Your task to perform on an android device: Go to Reddit Image 0: 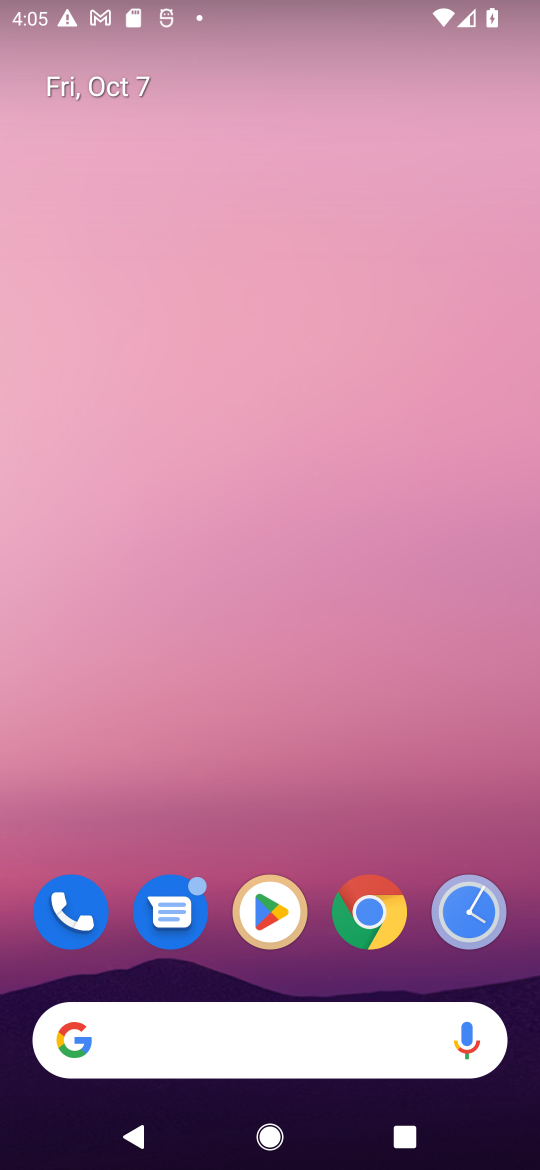
Step 0: drag from (311, 963) to (400, 352)
Your task to perform on an android device: Go to Reddit Image 1: 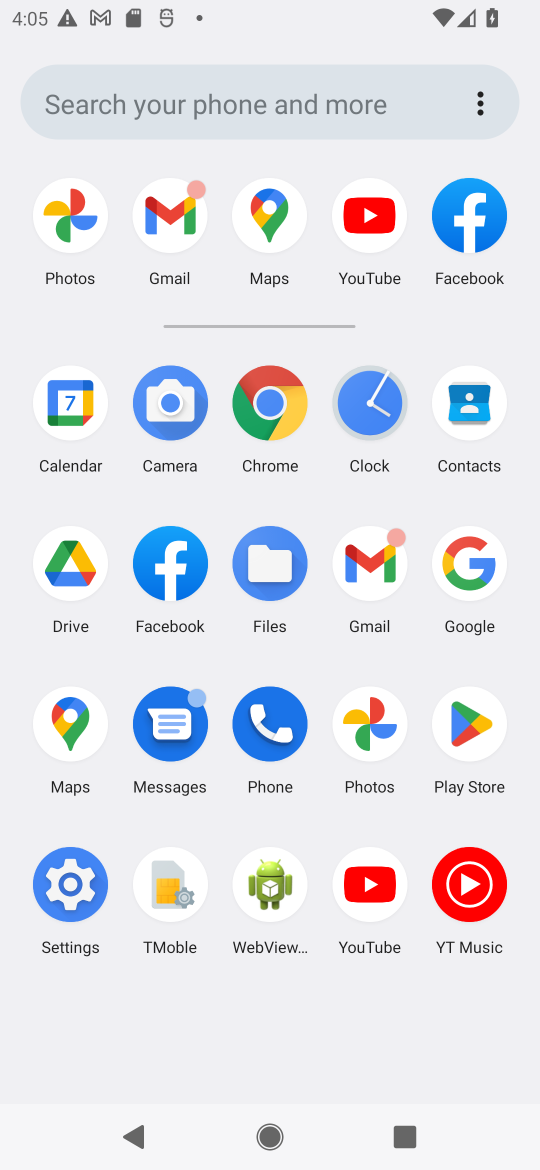
Step 1: click (272, 417)
Your task to perform on an android device: Go to Reddit Image 2: 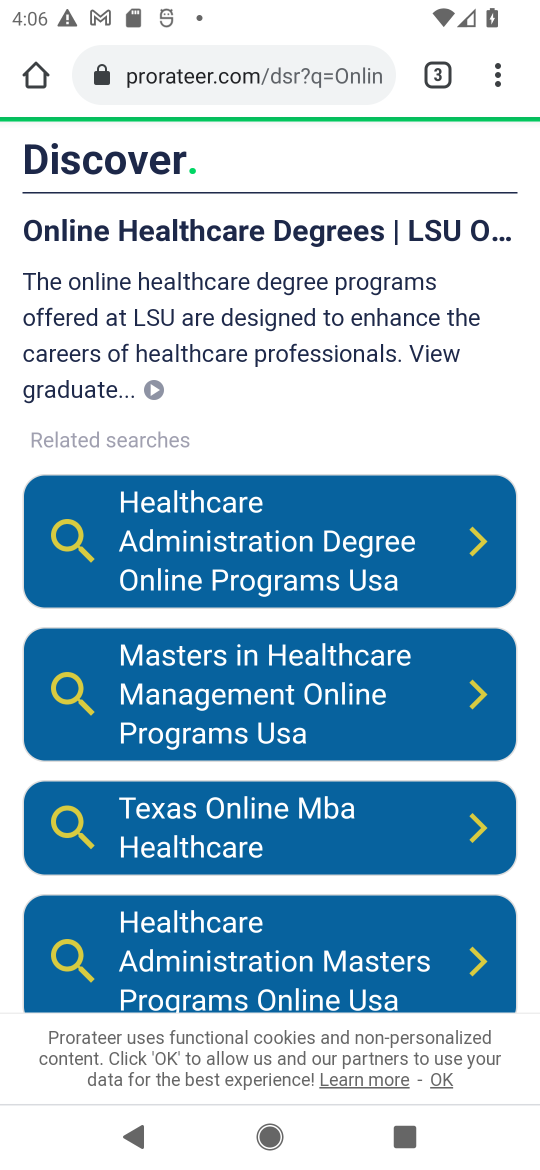
Step 2: click (498, 61)
Your task to perform on an android device: Go to Reddit Image 3: 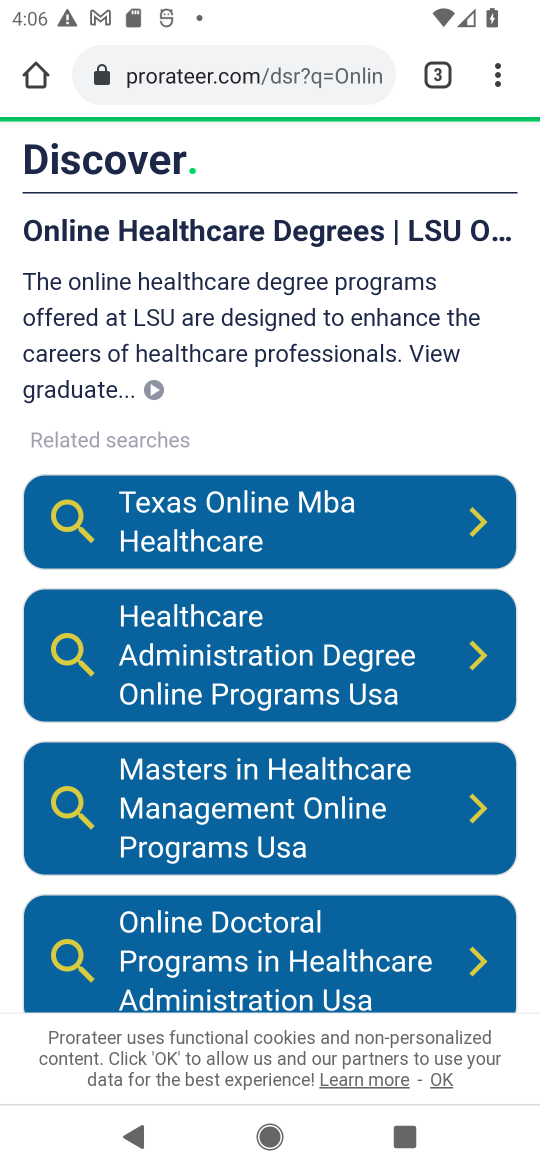
Step 3: click (498, 61)
Your task to perform on an android device: Go to Reddit Image 4: 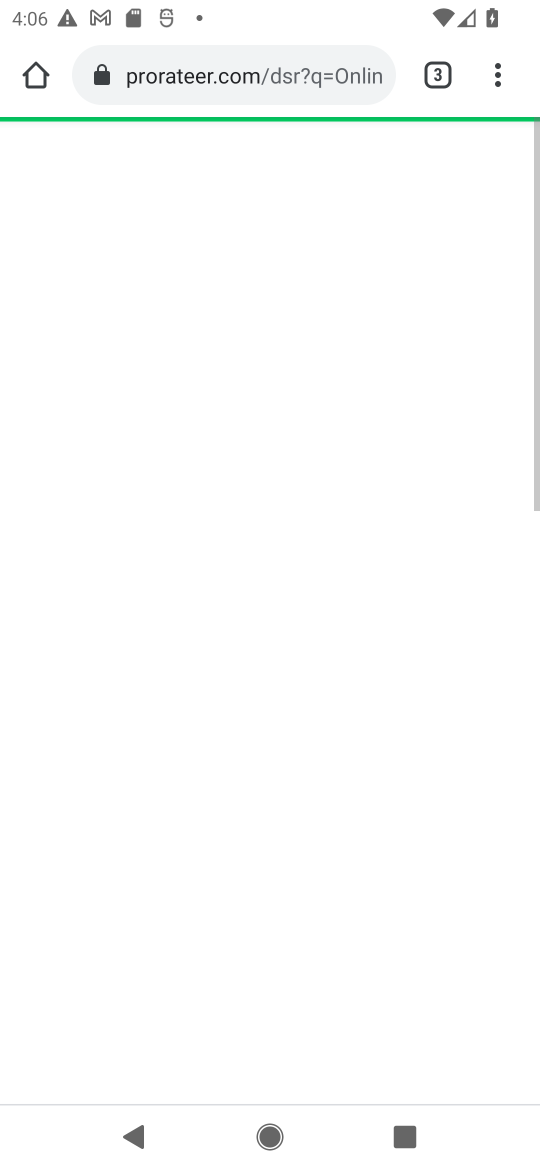
Step 4: click (529, 86)
Your task to perform on an android device: Go to Reddit Image 5: 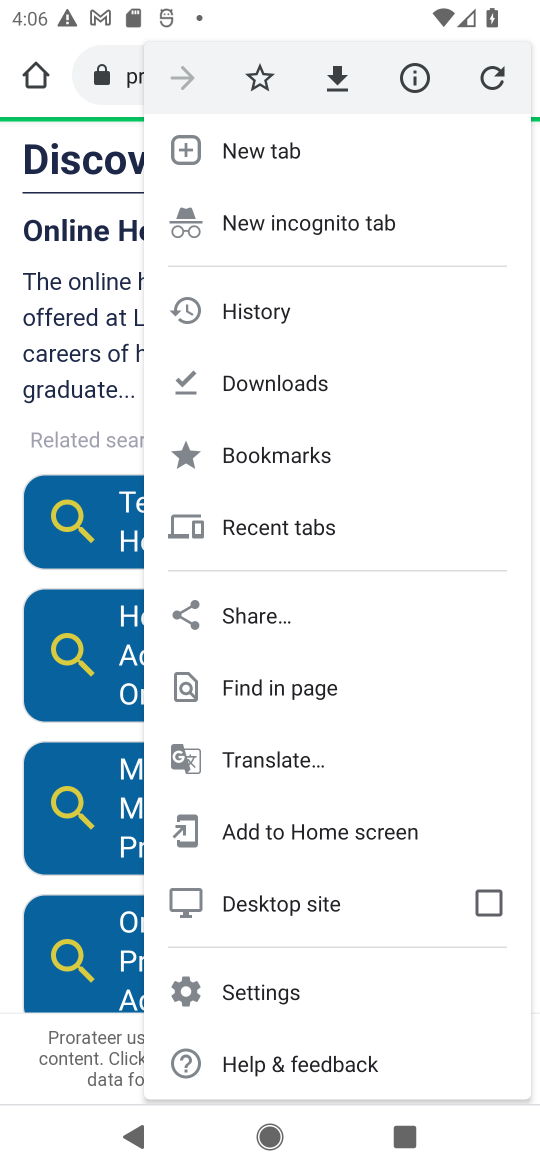
Step 5: click (259, 151)
Your task to perform on an android device: Go to Reddit Image 6: 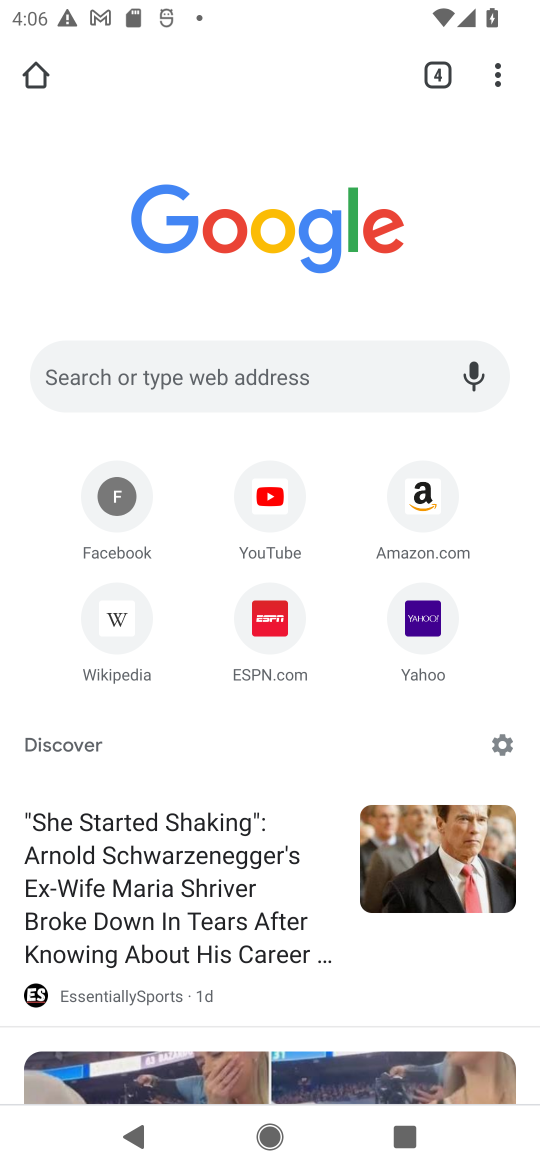
Step 6: click (215, 365)
Your task to perform on an android device: Go to Reddit Image 7: 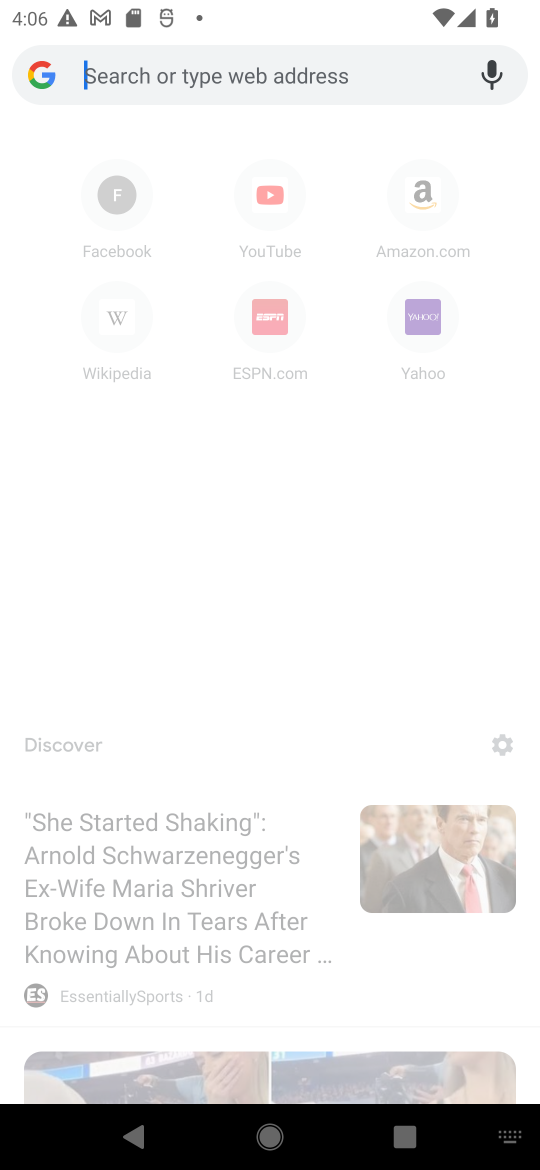
Step 7: type "Go to Reddit "
Your task to perform on an android device: Go to Reddit Image 8: 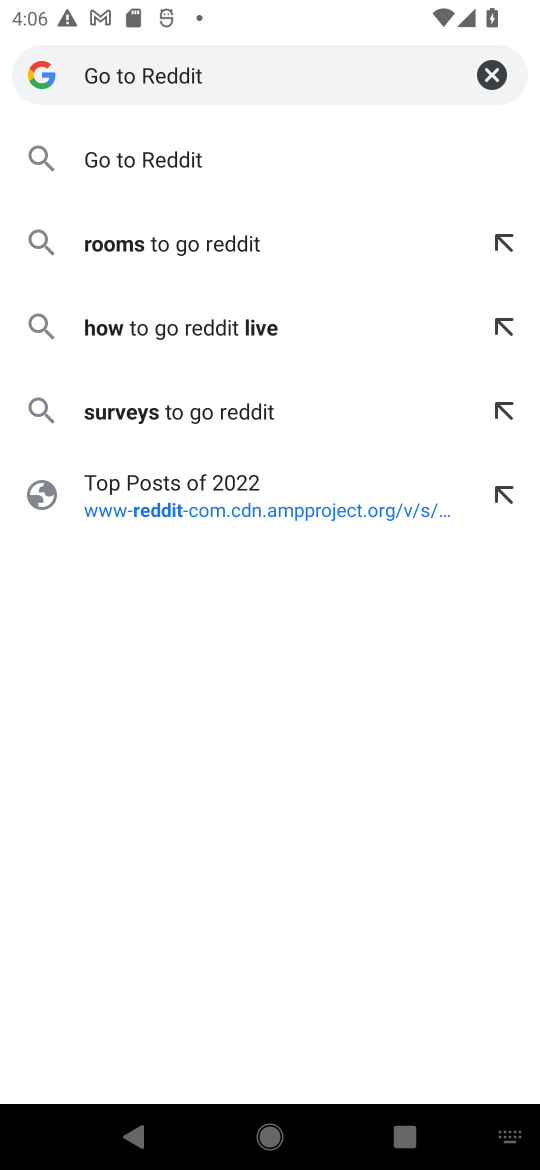
Step 8: click (203, 164)
Your task to perform on an android device: Go to Reddit Image 9: 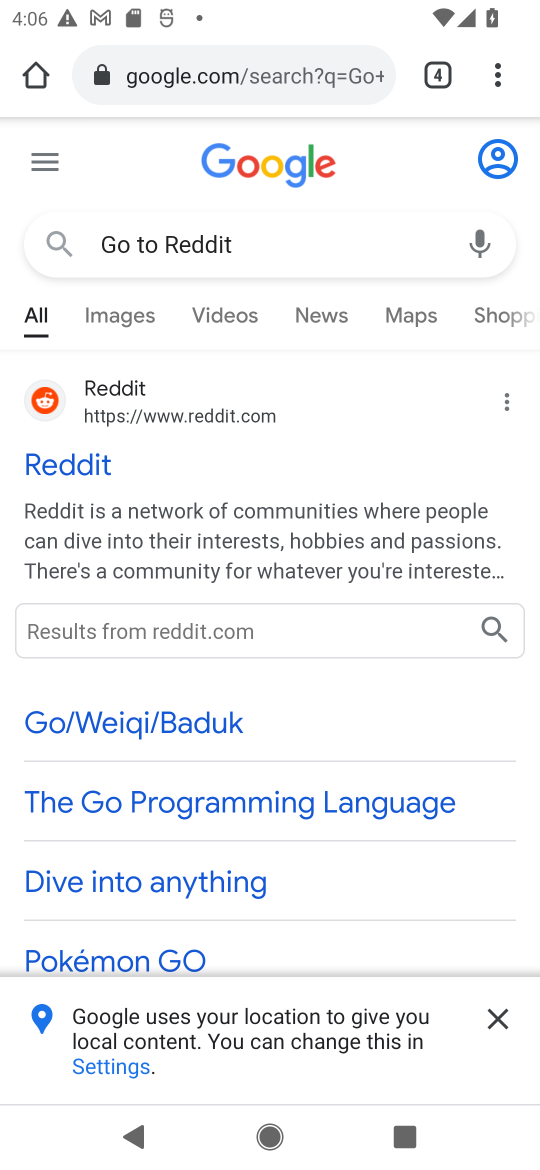
Step 9: task complete